Your task to perform on an android device: Go to calendar. Show me events next week Image 0: 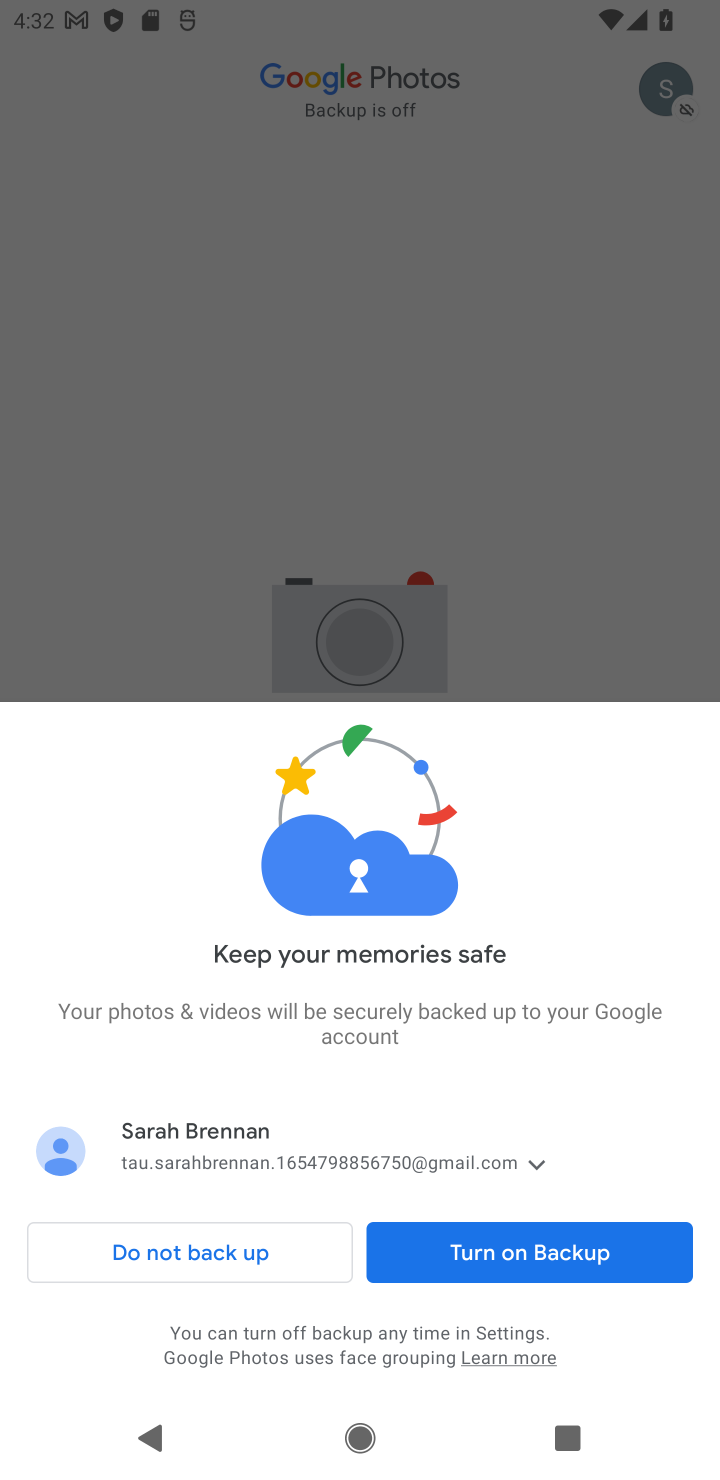
Step 0: press home button
Your task to perform on an android device: Go to calendar. Show me events next week Image 1: 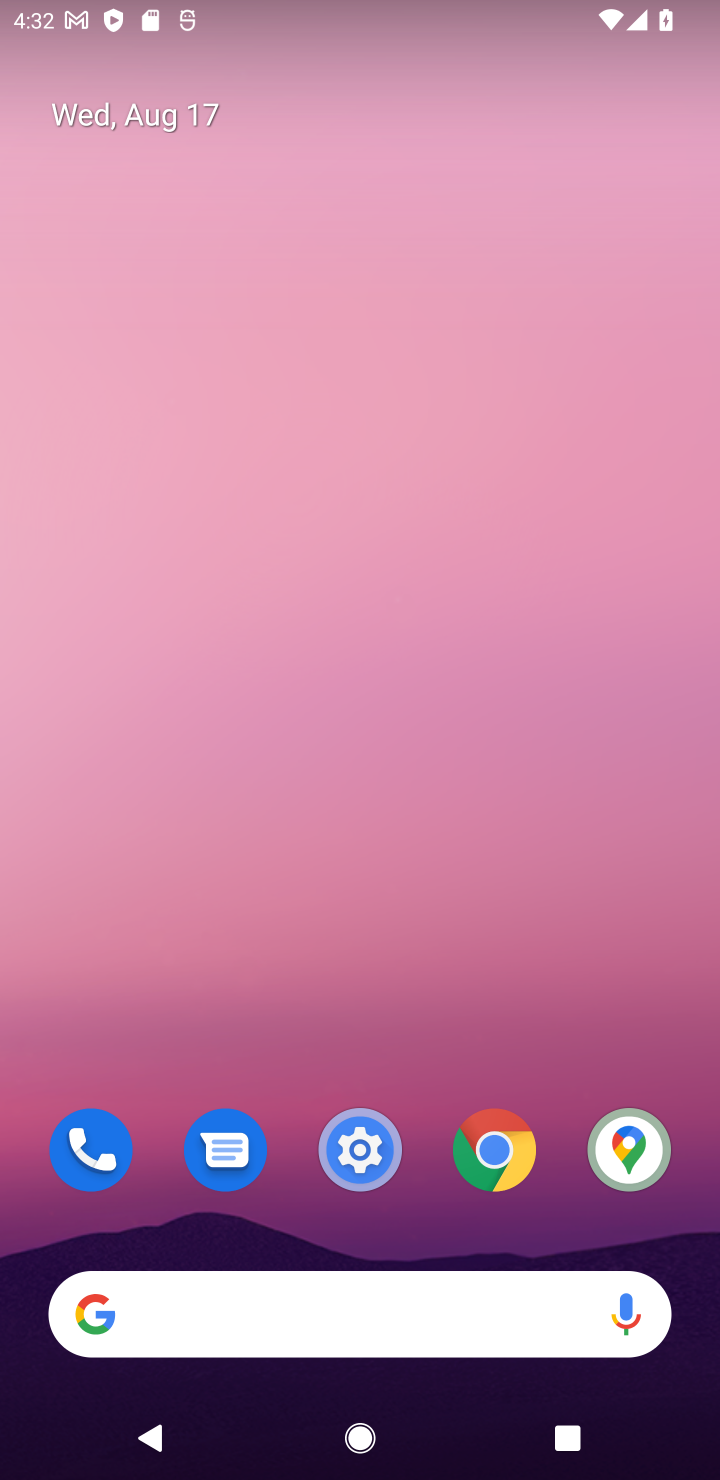
Step 1: drag from (661, 728) to (365, 9)
Your task to perform on an android device: Go to calendar. Show me events next week Image 2: 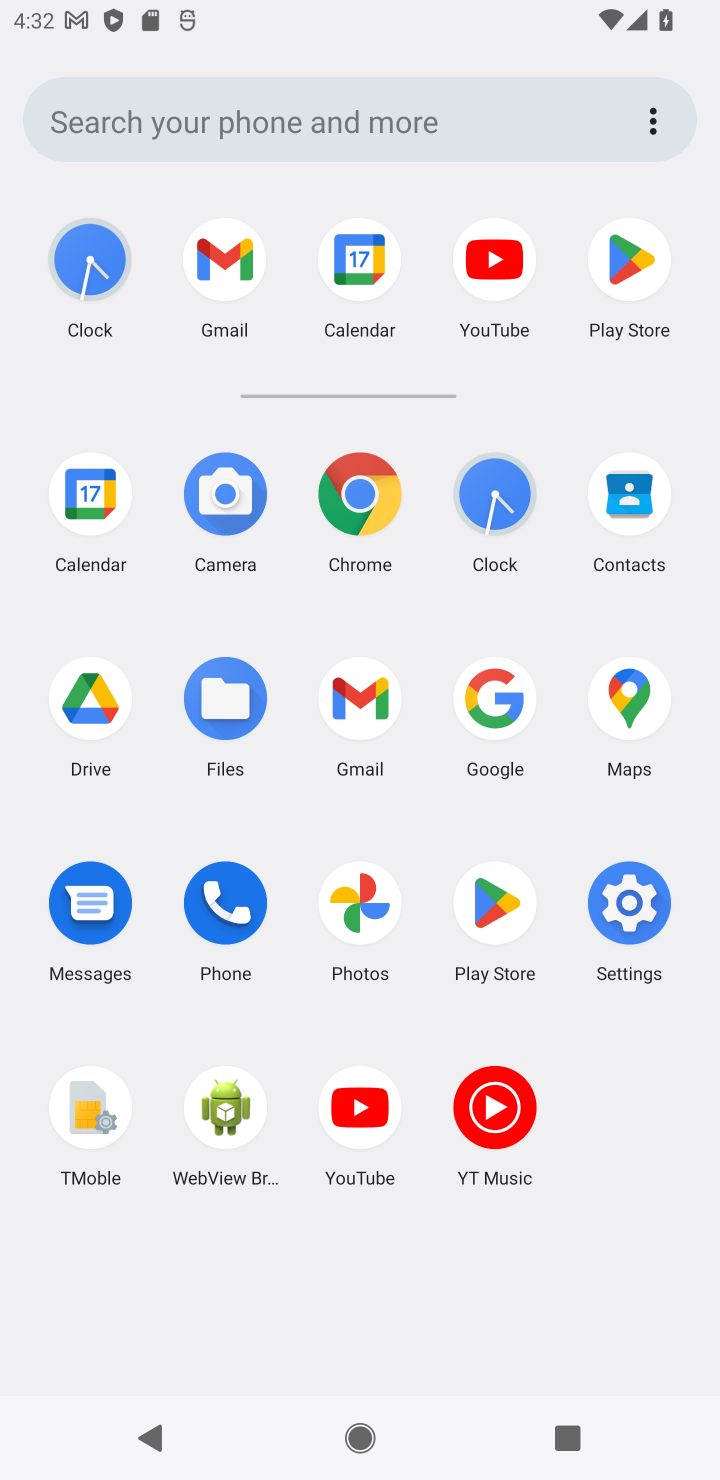
Step 2: click (84, 520)
Your task to perform on an android device: Go to calendar. Show me events next week Image 3: 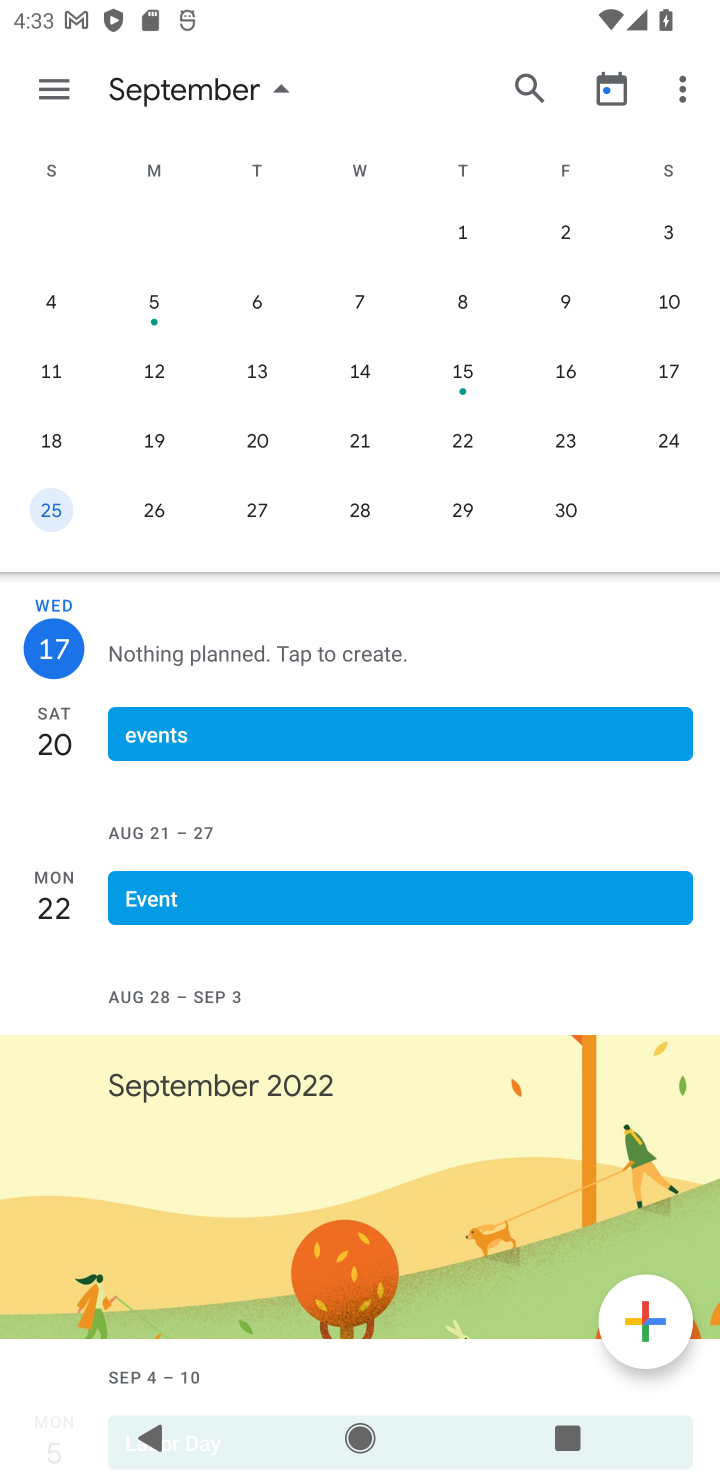
Step 3: task complete